Your task to perform on an android device: Search for Italian restaurants on Maps Image 0: 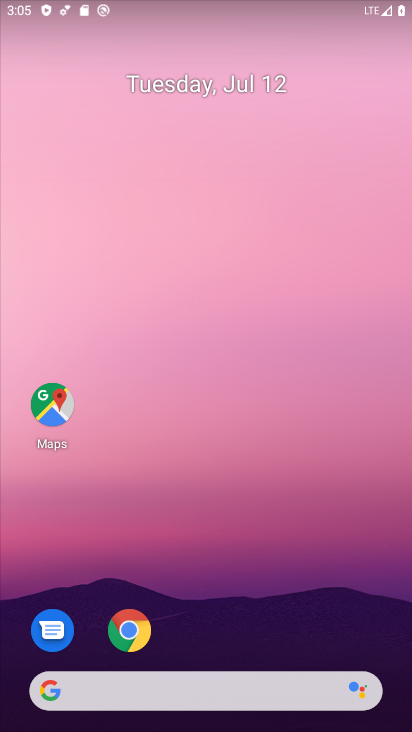
Step 0: drag from (345, 678) to (356, 0)
Your task to perform on an android device: Search for Italian restaurants on Maps Image 1: 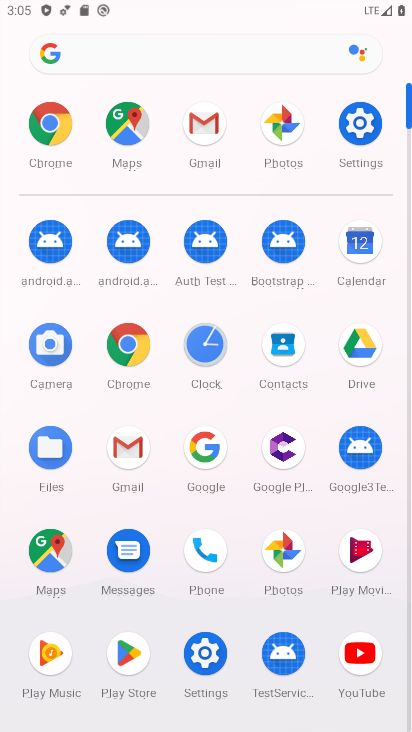
Step 1: click (52, 552)
Your task to perform on an android device: Search for Italian restaurants on Maps Image 2: 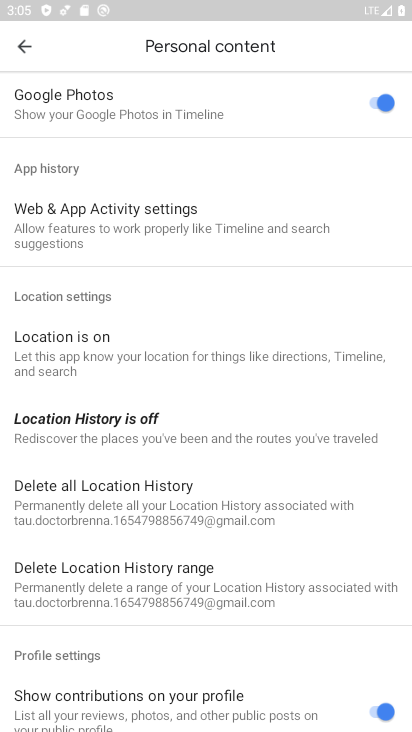
Step 2: press back button
Your task to perform on an android device: Search for Italian restaurants on Maps Image 3: 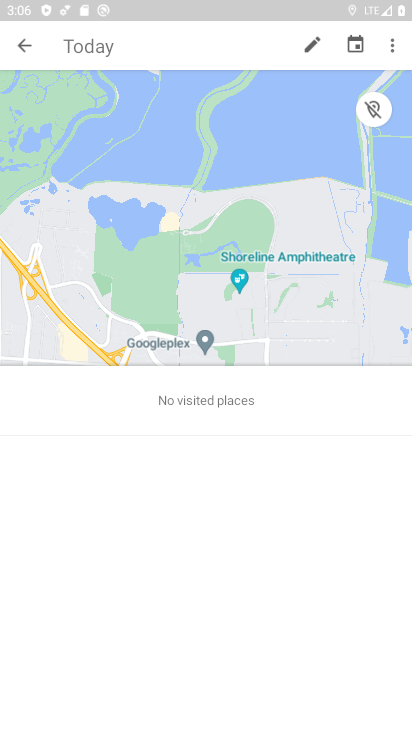
Step 3: press back button
Your task to perform on an android device: Search for Italian restaurants on Maps Image 4: 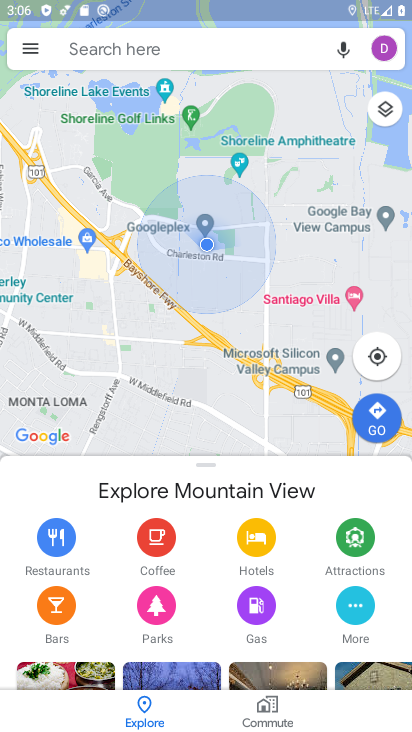
Step 4: click (155, 64)
Your task to perform on an android device: Search for Italian restaurants on Maps Image 5: 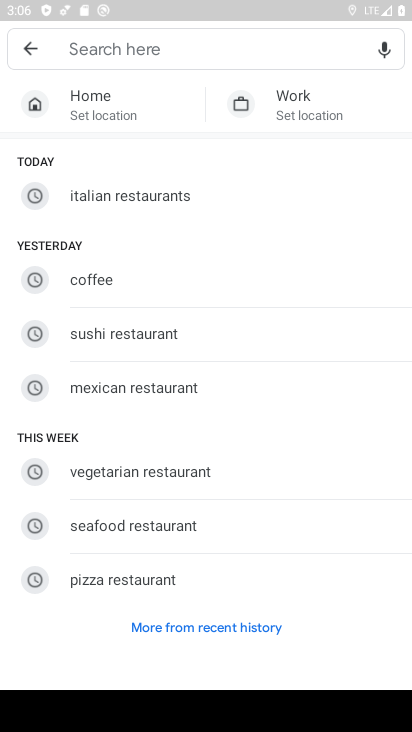
Step 5: click (173, 195)
Your task to perform on an android device: Search for Italian restaurants on Maps Image 6: 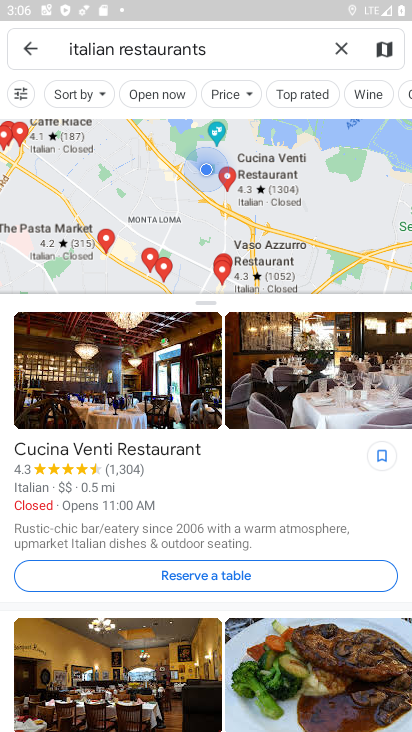
Step 6: task complete